Your task to perform on an android device: Open the calendar and show me this week's events? Image 0: 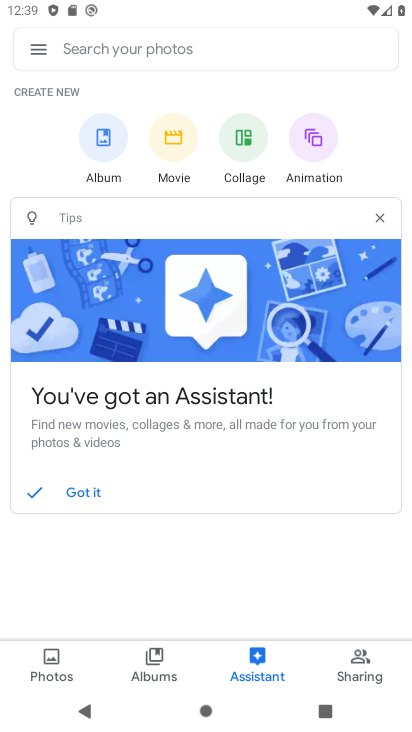
Step 0: press home button
Your task to perform on an android device: Open the calendar and show me this week's events? Image 1: 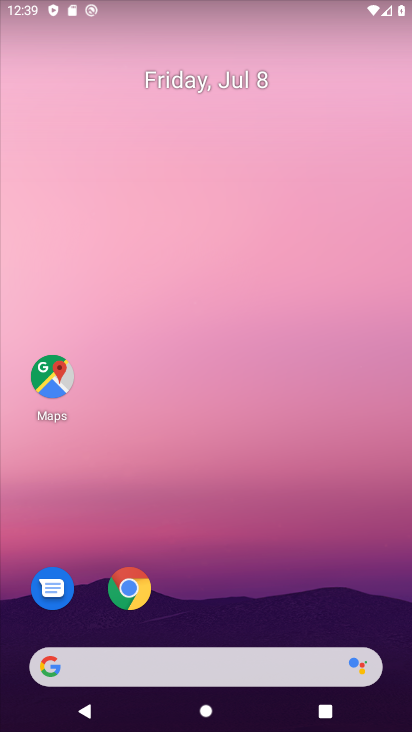
Step 1: drag from (187, 593) to (290, 12)
Your task to perform on an android device: Open the calendar and show me this week's events? Image 2: 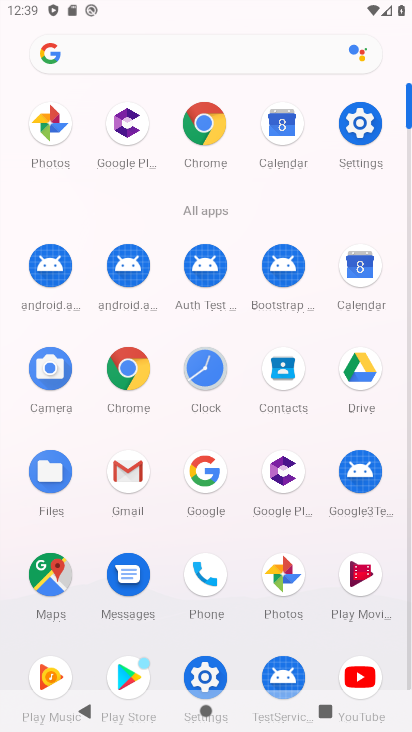
Step 2: click (378, 268)
Your task to perform on an android device: Open the calendar and show me this week's events? Image 3: 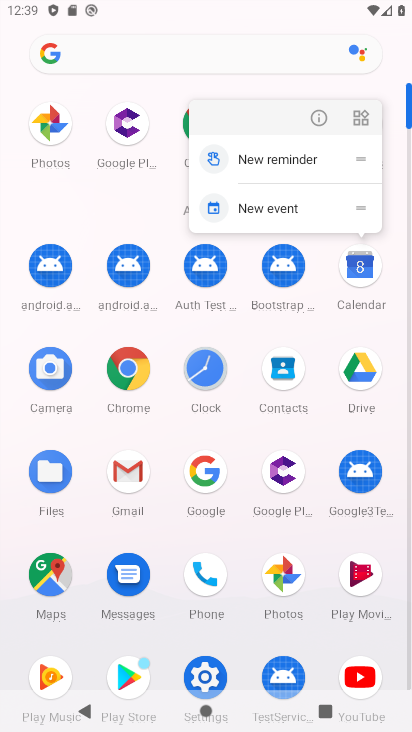
Step 3: click (364, 292)
Your task to perform on an android device: Open the calendar and show me this week's events? Image 4: 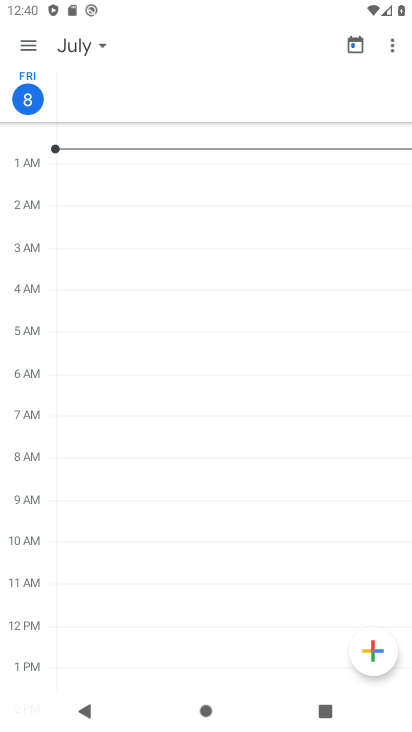
Step 4: click (31, 48)
Your task to perform on an android device: Open the calendar and show me this week's events? Image 5: 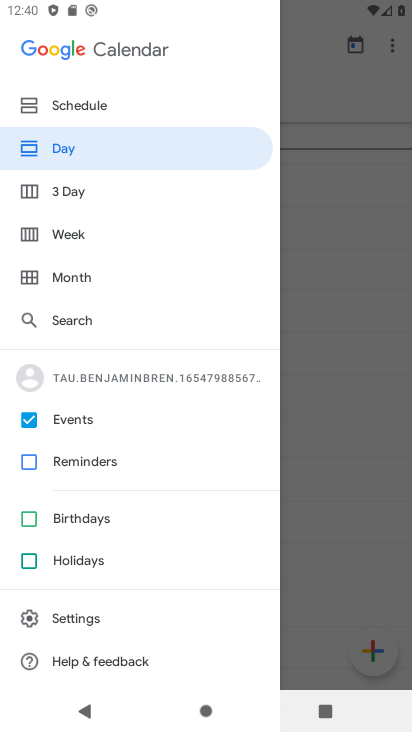
Step 5: click (77, 226)
Your task to perform on an android device: Open the calendar and show me this week's events? Image 6: 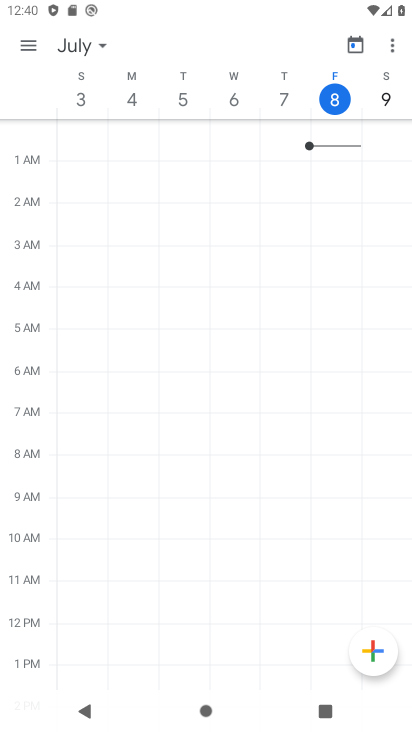
Step 6: task complete